Your task to perform on an android device: move a message to another label in the gmail app Image 0: 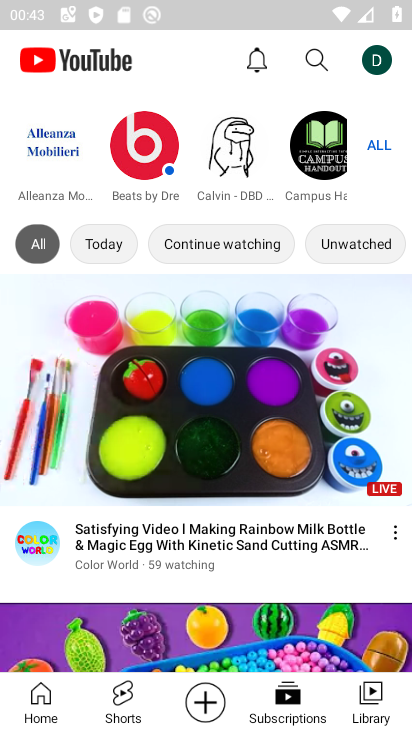
Step 0: press back button
Your task to perform on an android device: move a message to another label in the gmail app Image 1: 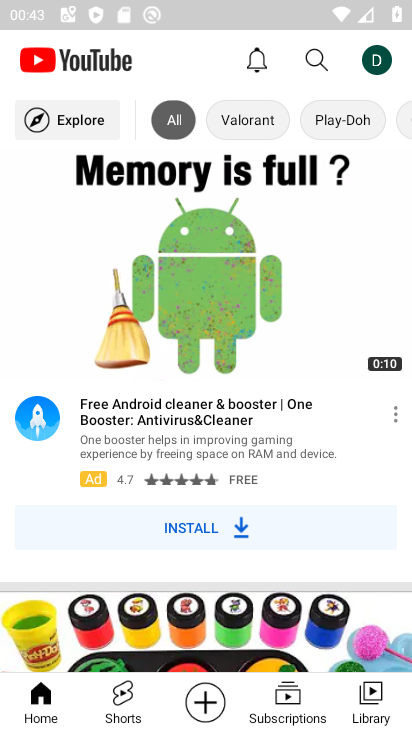
Step 1: press back button
Your task to perform on an android device: move a message to another label in the gmail app Image 2: 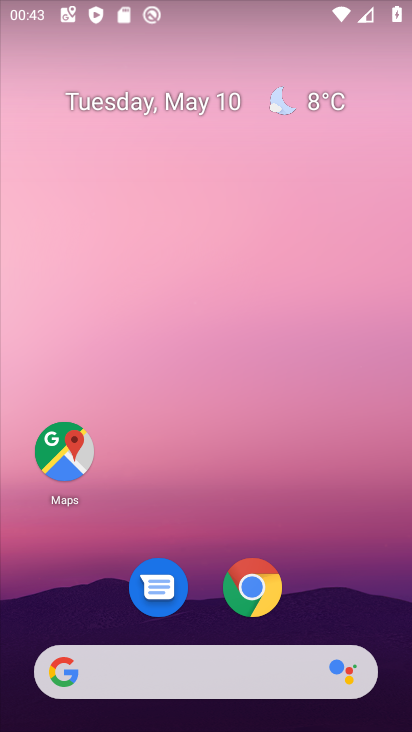
Step 2: click (320, 193)
Your task to perform on an android device: move a message to another label in the gmail app Image 3: 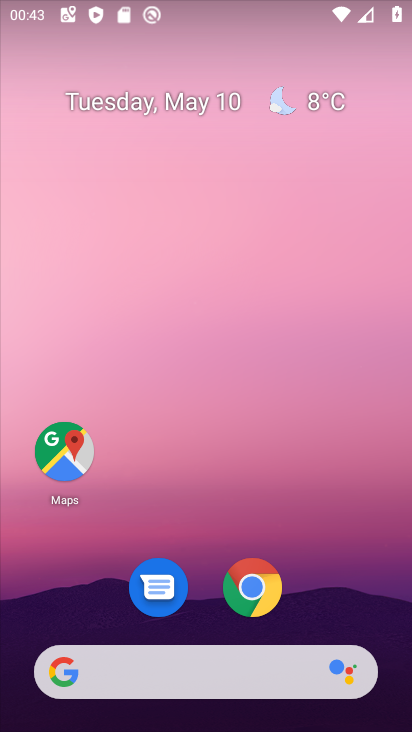
Step 3: drag from (399, 661) to (377, 263)
Your task to perform on an android device: move a message to another label in the gmail app Image 4: 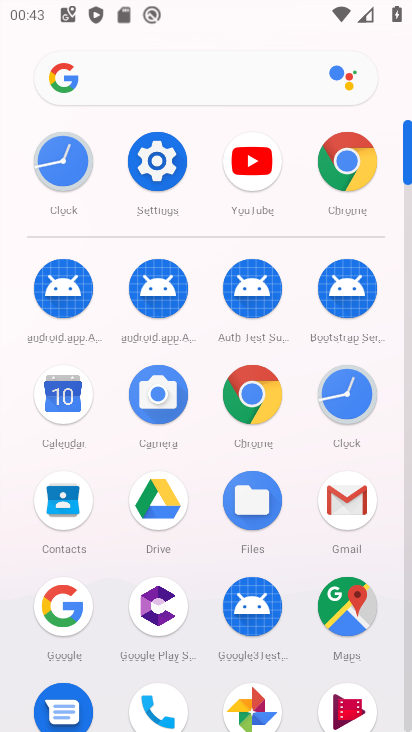
Step 4: click (344, 510)
Your task to perform on an android device: move a message to another label in the gmail app Image 5: 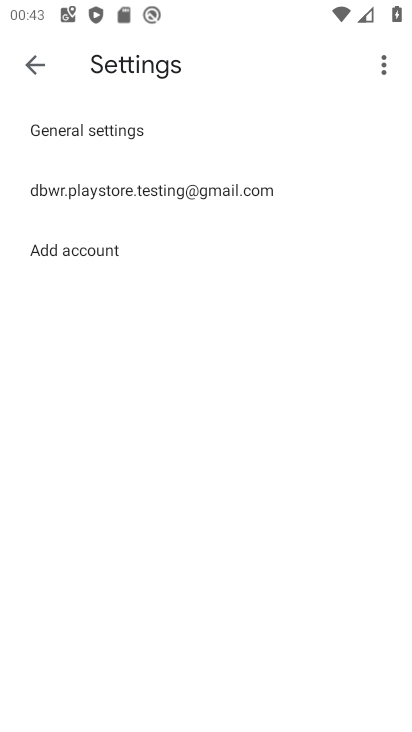
Step 5: click (39, 70)
Your task to perform on an android device: move a message to another label in the gmail app Image 6: 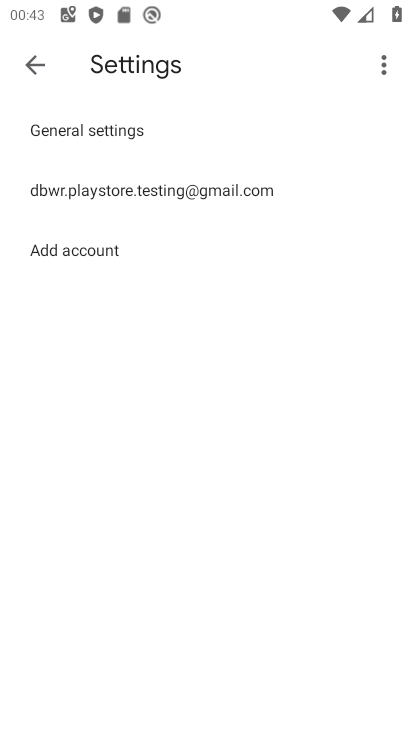
Step 6: click (33, 62)
Your task to perform on an android device: move a message to another label in the gmail app Image 7: 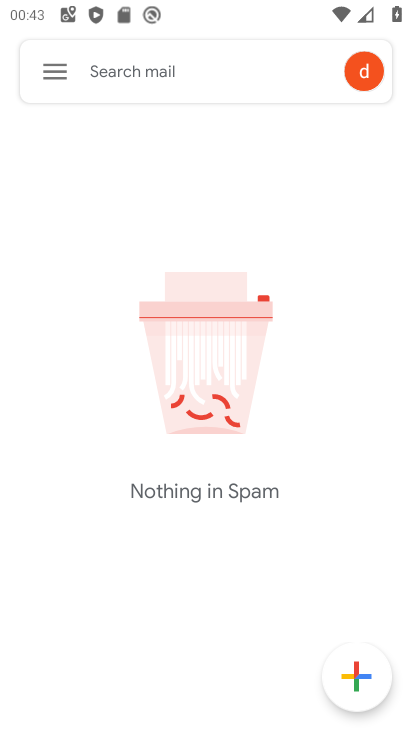
Step 7: click (46, 70)
Your task to perform on an android device: move a message to another label in the gmail app Image 8: 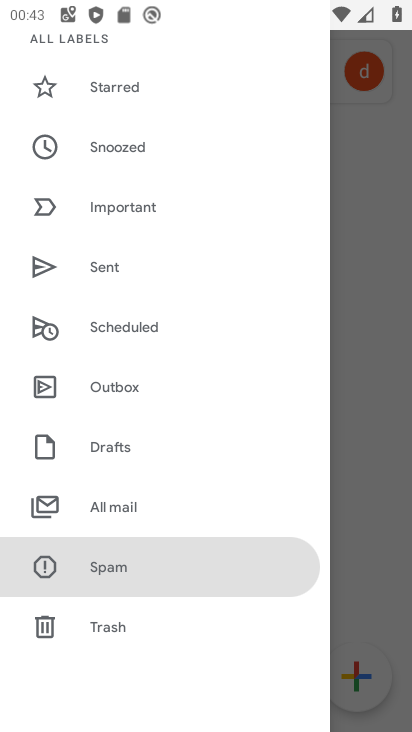
Step 8: click (295, 478)
Your task to perform on an android device: move a message to another label in the gmail app Image 9: 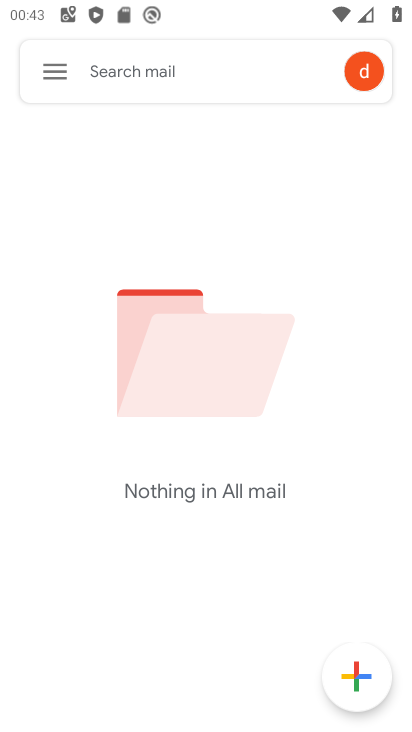
Step 9: click (56, 75)
Your task to perform on an android device: move a message to another label in the gmail app Image 10: 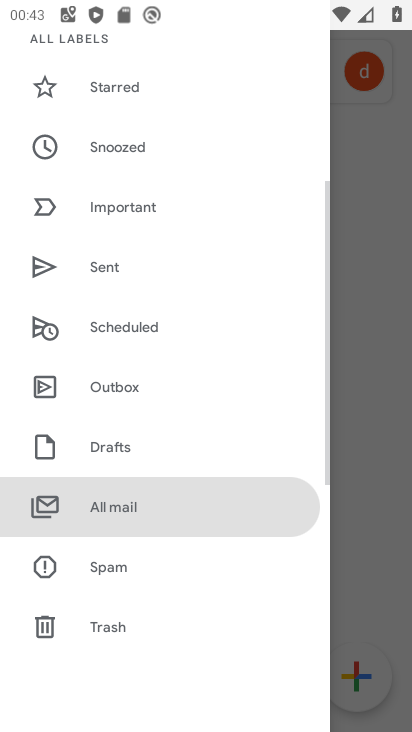
Step 10: drag from (209, 415) to (208, 482)
Your task to perform on an android device: move a message to another label in the gmail app Image 11: 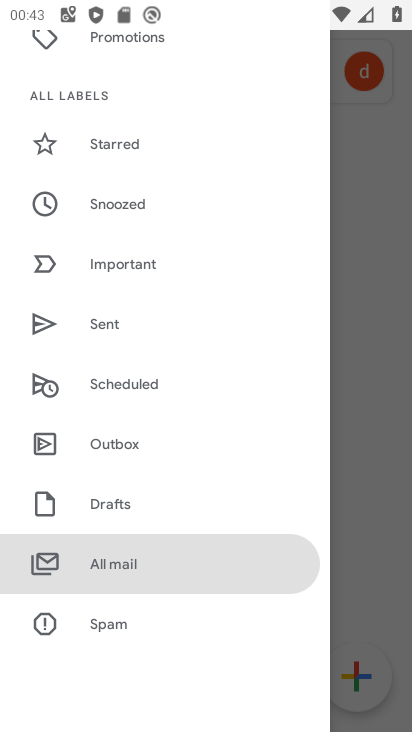
Step 11: drag from (237, 144) to (239, 363)
Your task to perform on an android device: move a message to another label in the gmail app Image 12: 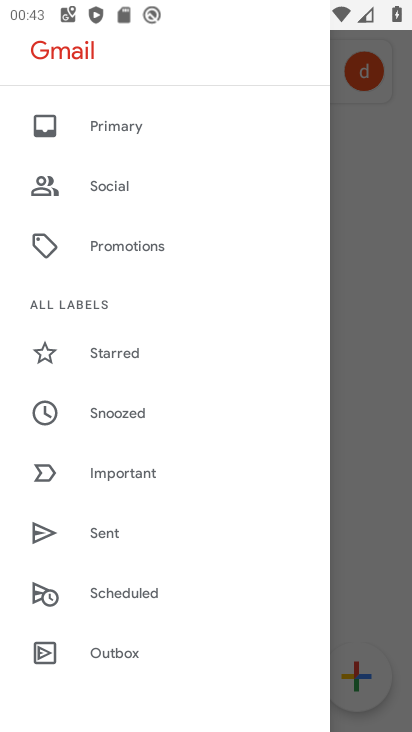
Step 12: click (118, 125)
Your task to perform on an android device: move a message to another label in the gmail app Image 13: 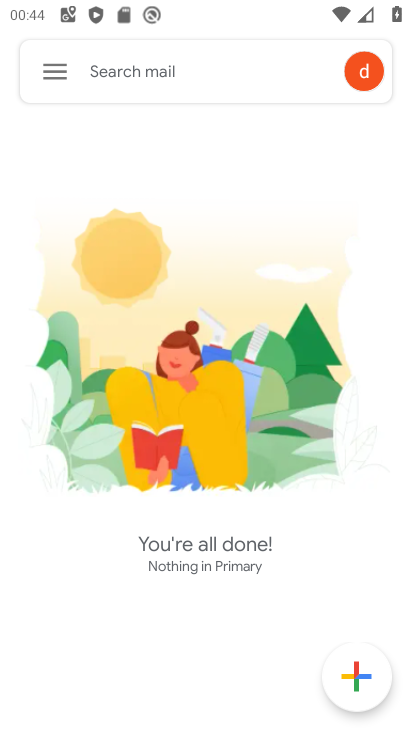
Step 13: task complete